Your task to perform on an android device: open sync settings in chrome Image 0: 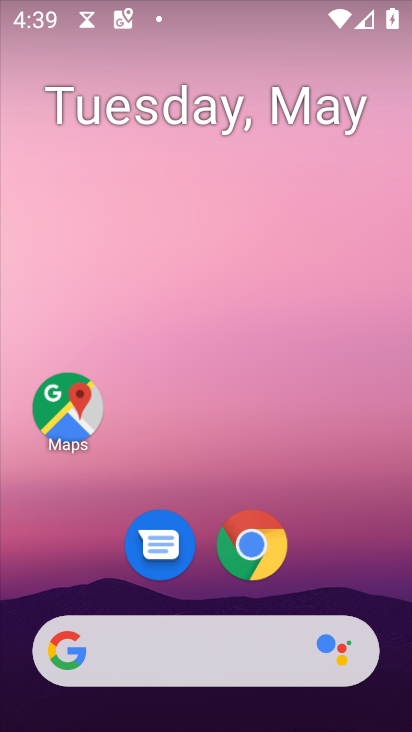
Step 0: click (254, 545)
Your task to perform on an android device: open sync settings in chrome Image 1: 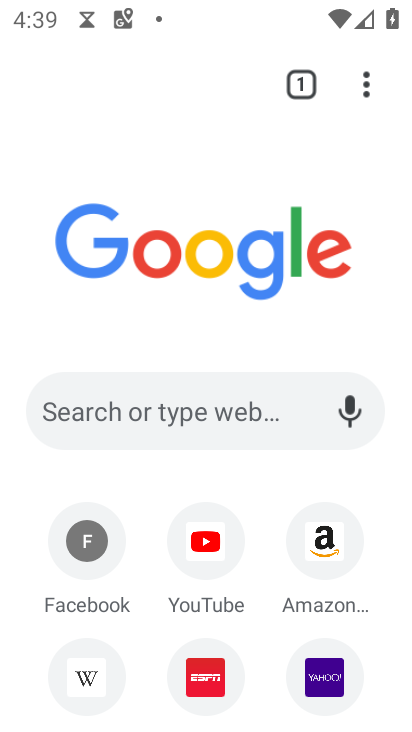
Step 1: click (369, 83)
Your task to perform on an android device: open sync settings in chrome Image 2: 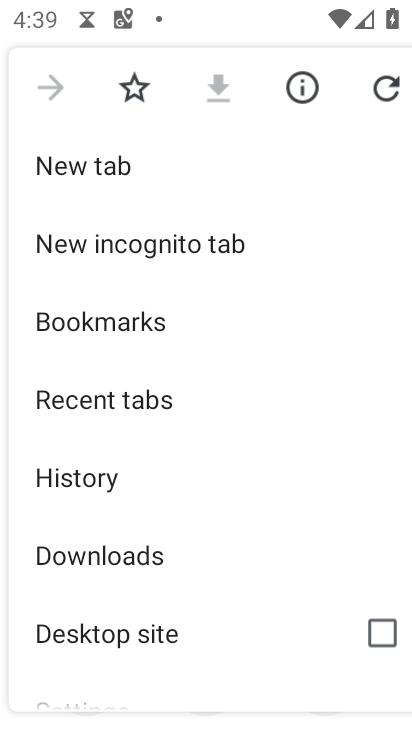
Step 2: drag from (122, 508) to (136, 380)
Your task to perform on an android device: open sync settings in chrome Image 3: 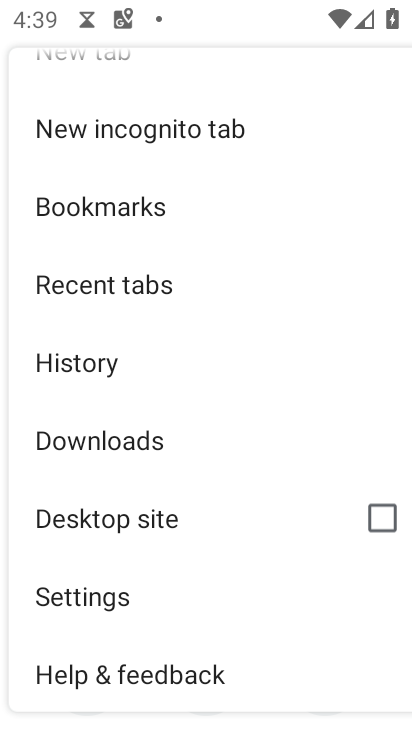
Step 3: click (82, 596)
Your task to perform on an android device: open sync settings in chrome Image 4: 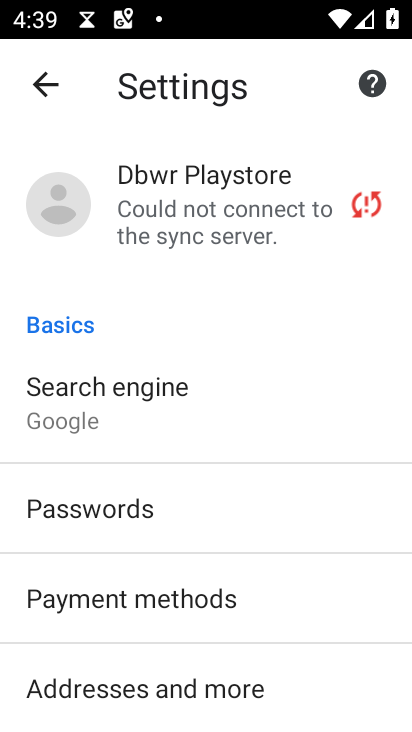
Step 4: drag from (100, 572) to (159, 381)
Your task to perform on an android device: open sync settings in chrome Image 5: 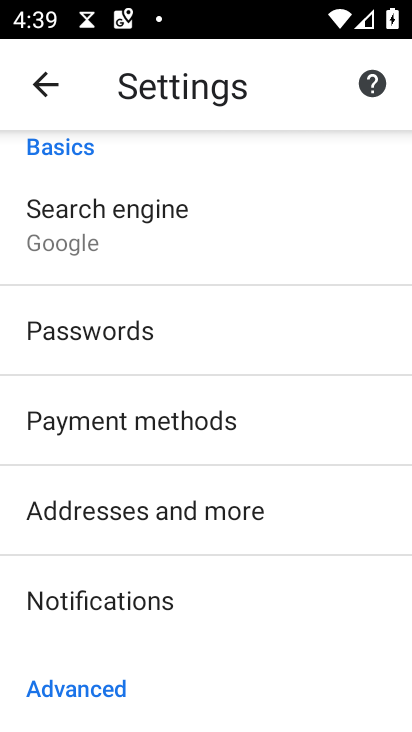
Step 5: drag from (96, 625) to (185, 458)
Your task to perform on an android device: open sync settings in chrome Image 6: 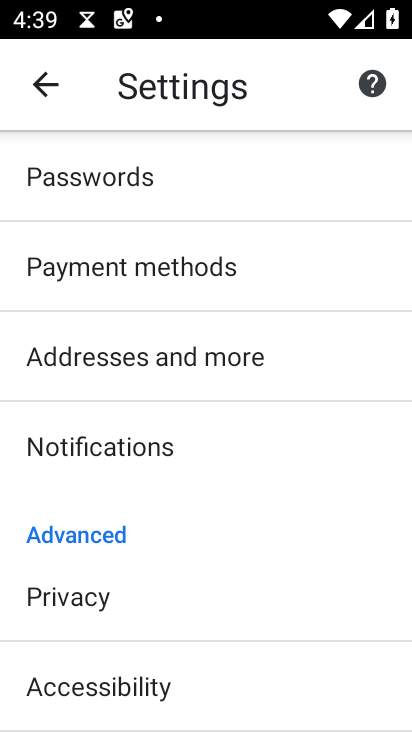
Step 6: drag from (145, 598) to (196, 462)
Your task to perform on an android device: open sync settings in chrome Image 7: 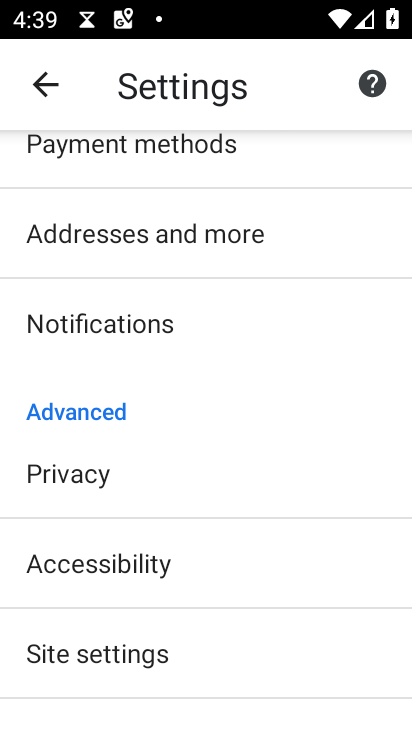
Step 7: click (102, 650)
Your task to perform on an android device: open sync settings in chrome Image 8: 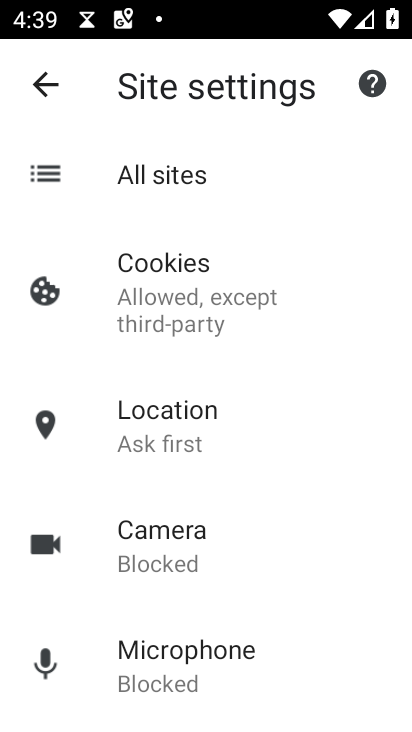
Step 8: drag from (199, 604) to (267, 437)
Your task to perform on an android device: open sync settings in chrome Image 9: 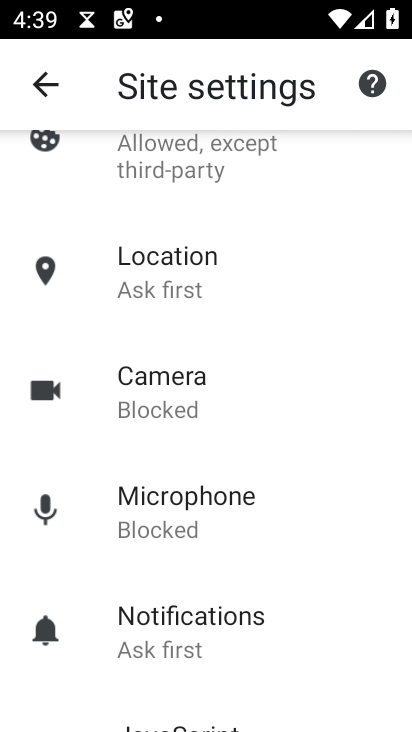
Step 9: drag from (183, 569) to (217, 440)
Your task to perform on an android device: open sync settings in chrome Image 10: 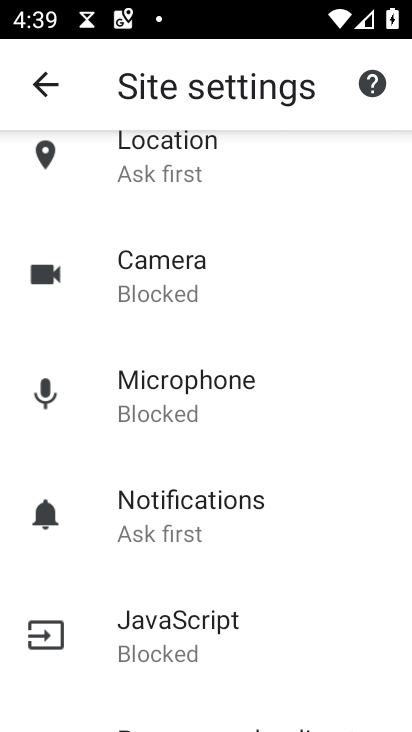
Step 10: drag from (177, 573) to (254, 411)
Your task to perform on an android device: open sync settings in chrome Image 11: 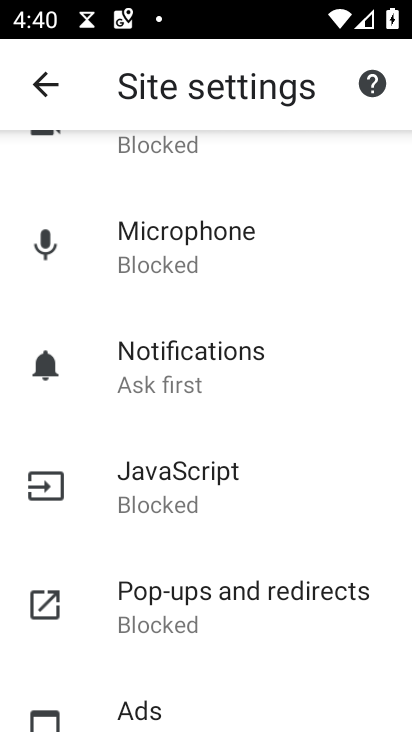
Step 11: drag from (173, 549) to (262, 383)
Your task to perform on an android device: open sync settings in chrome Image 12: 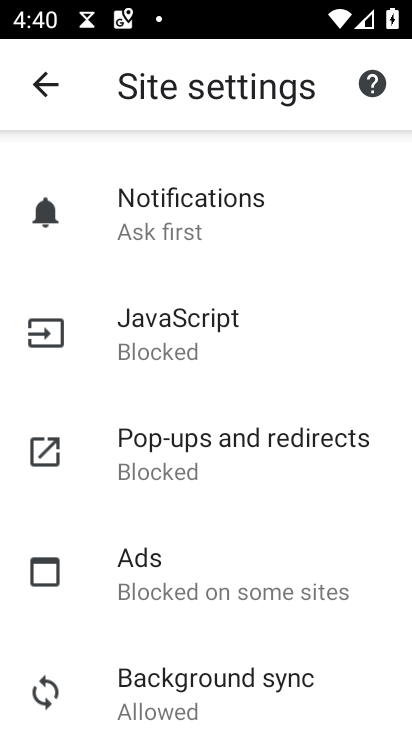
Step 12: drag from (170, 628) to (256, 497)
Your task to perform on an android device: open sync settings in chrome Image 13: 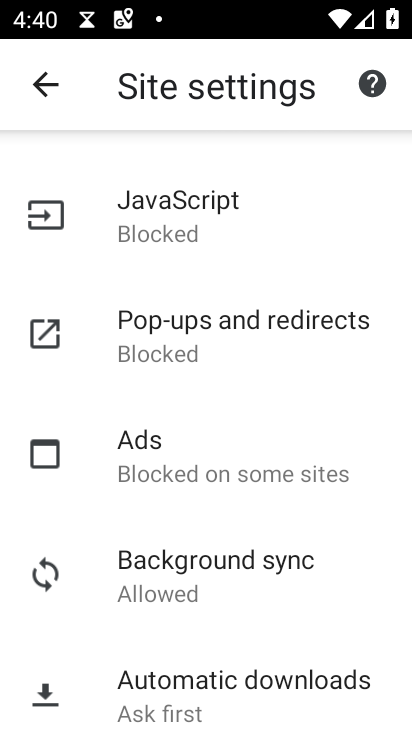
Step 13: click (219, 554)
Your task to perform on an android device: open sync settings in chrome Image 14: 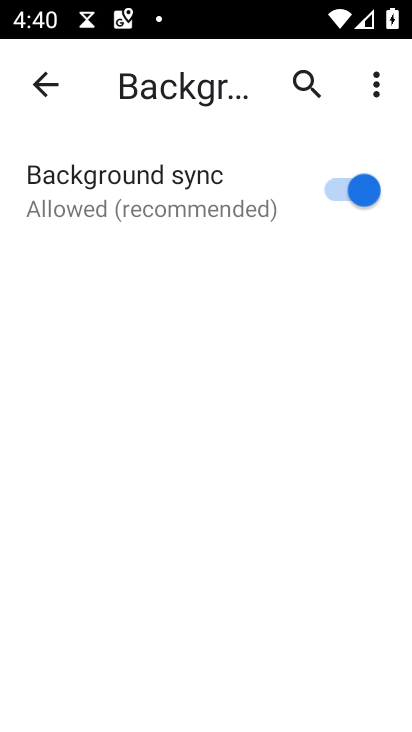
Step 14: task complete